Your task to perform on an android device: open a new tab in the chrome app Image 0: 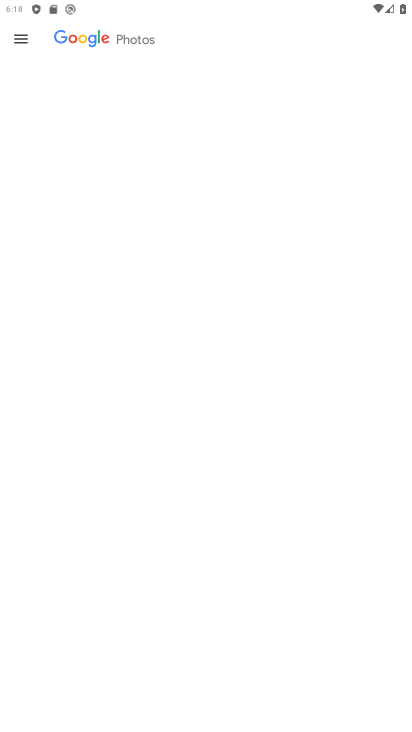
Step 0: press home button
Your task to perform on an android device: open a new tab in the chrome app Image 1: 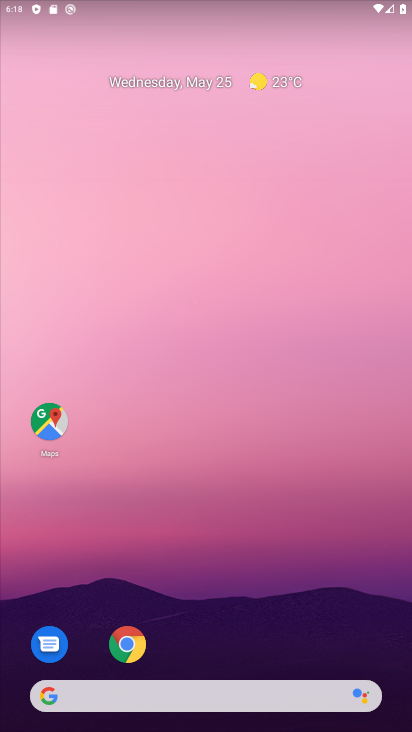
Step 1: drag from (402, 650) to (290, 13)
Your task to perform on an android device: open a new tab in the chrome app Image 2: 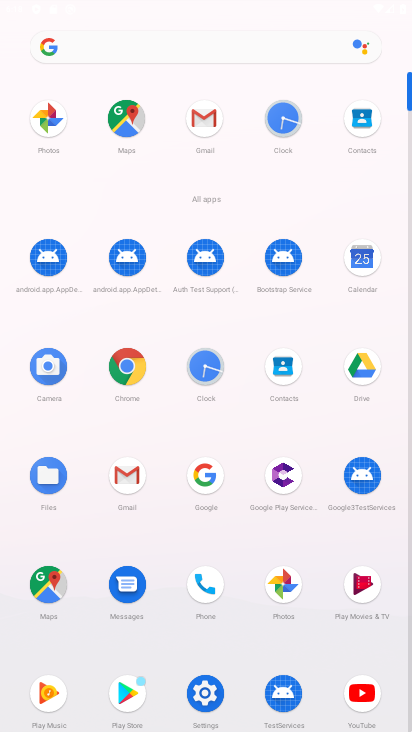
Step 2: click (126, 357)
Your task to perform on an android device: open a new tab in the chrome app Image 3: 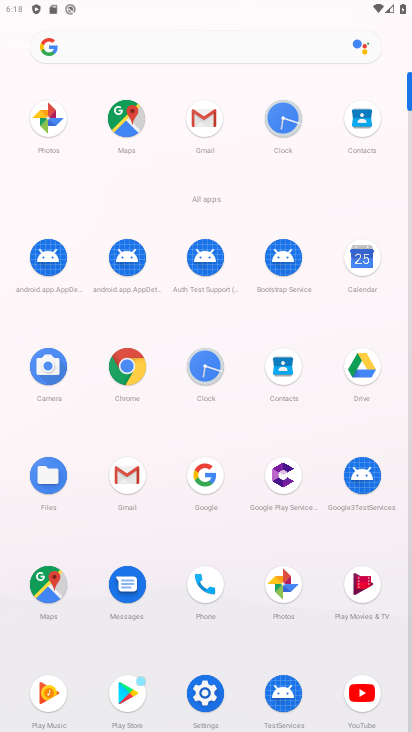
Step 3: click (128, 371)
Your task to perform on an android device: open a new tab in the chrome app Image 4: 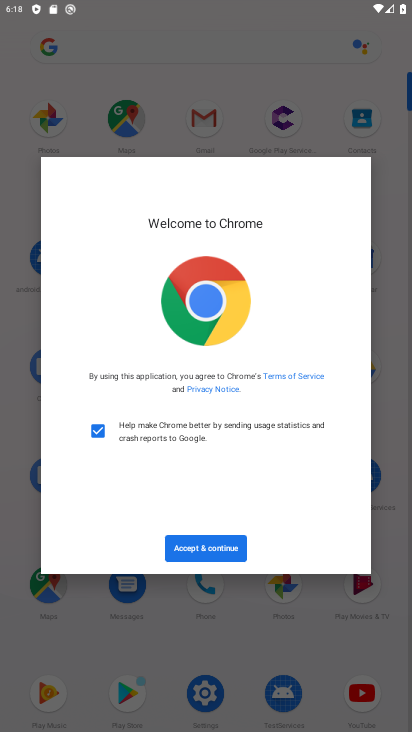
Step 4: click (197, 535)
Your task to perform on an android device: open a new tab in the chrome app Image 5: 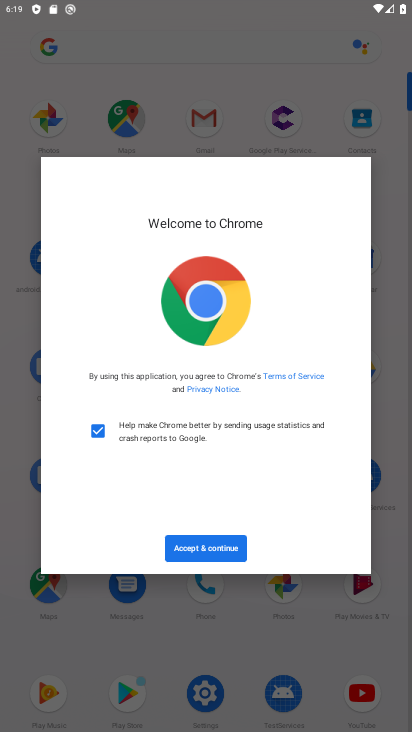
Step 5: click (201, 553)
Your task to perform on an android device: open a new tab in the chrome app Image 6: 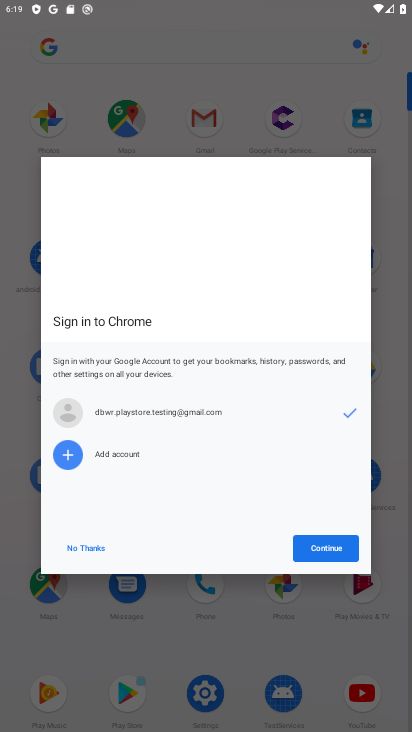
Step 6: click (309, 553)
Your task to perform on an android device: open a new tab in the chrome app Image 7: 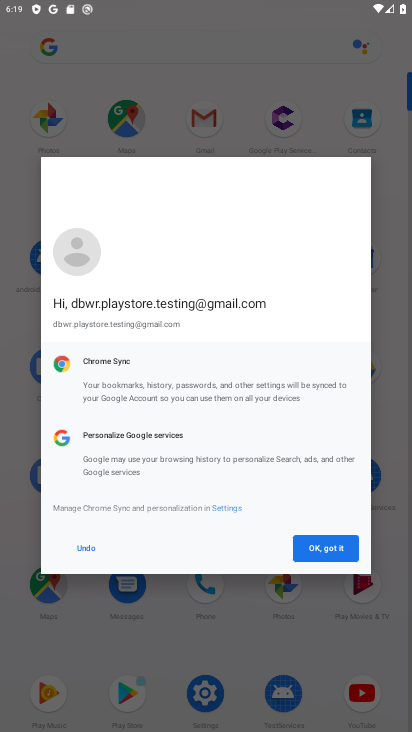
Step 7: click (309, 553)
Your task to perform on an android device: open a new tab in the chrome app Image 8: 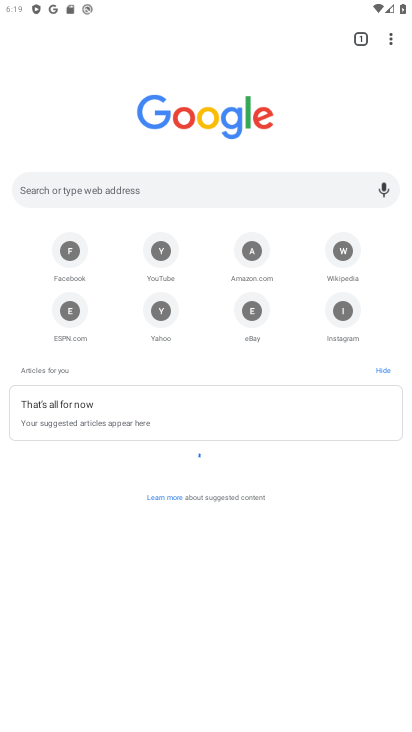
Step 8: click (396, 29)
Your task to perform on an android device: open a new tab in the chrome app Image 9: 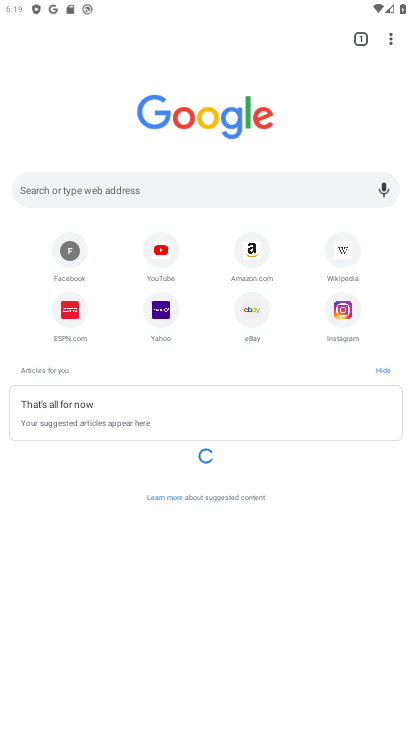
Step 9: click (395, 34)
Your task to perform on an android device: open a new tab in the chrome app Image 10: 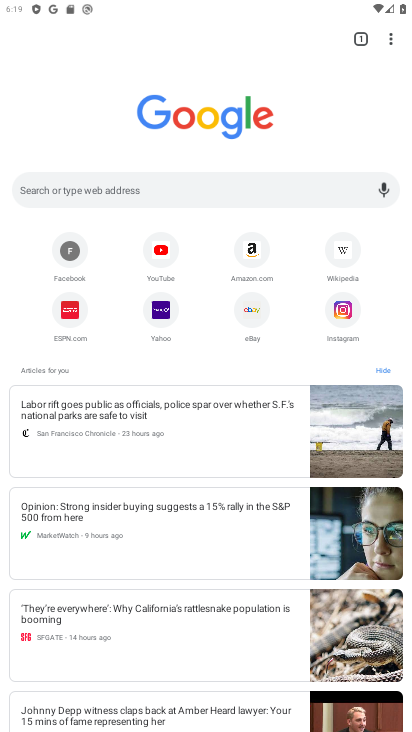
Step 10: click (390, 38)
Your task to perform on an android device: open a new tab in the chrome app Image 11: 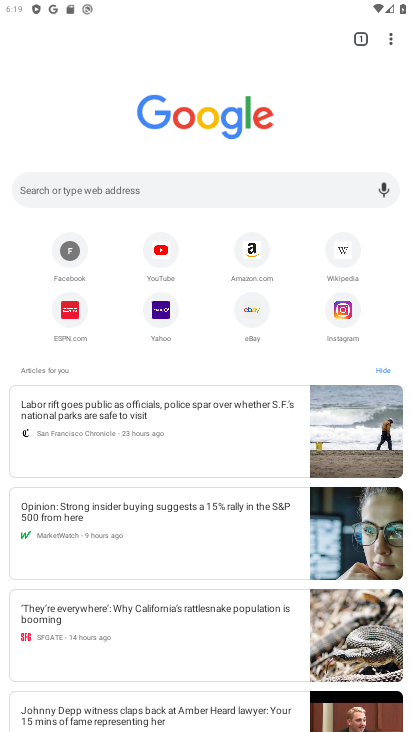
Step 11: click (390, 38)
Your task to perform on an android device: open a new tab in the chrome app Image 12: 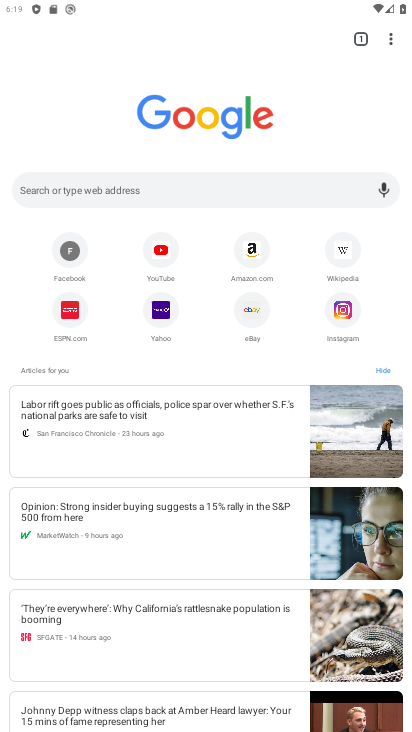
Step 12: click (394, 24)
Your task to perform on an android device: open a new tab in the chrome app Image 13: 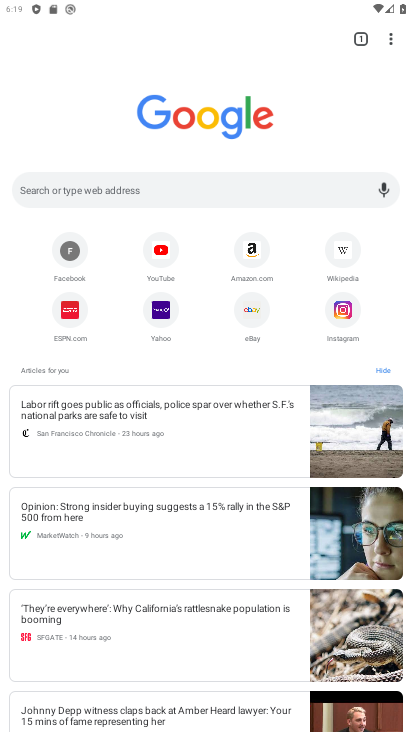
Step 13: click (389, 32)
Your task to perform on an android device: open a new tab in the chrome app Image 14: 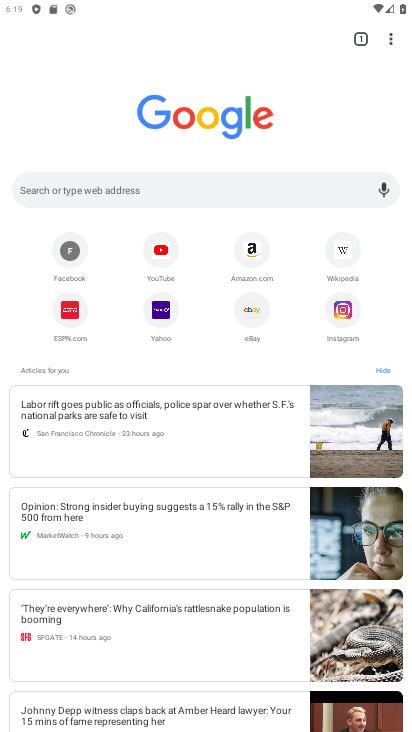
Step 14: click (389, 32)
Your task to perform on an android device: open a new tab in the chrome app Image 15: 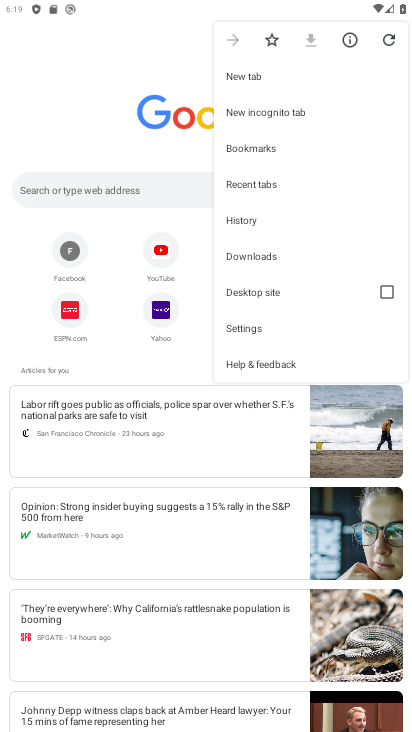
Step 15: click (265, 85)
Your task to perform on an android device: open a new tab in the chrome app Image 16: 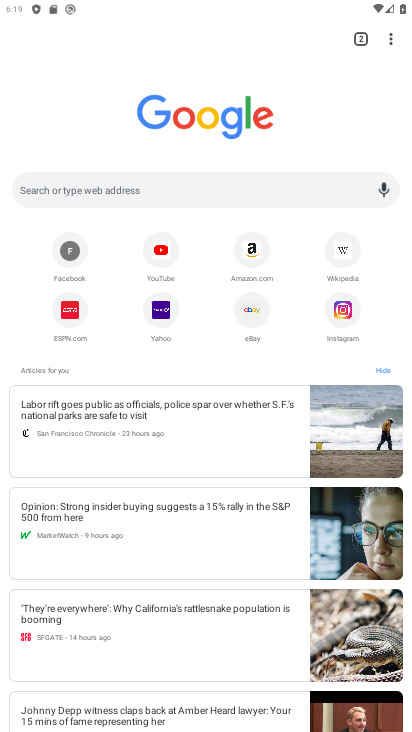
Step 16: task complete